Your task to perform on an android device: Open wifi settings Image 0: 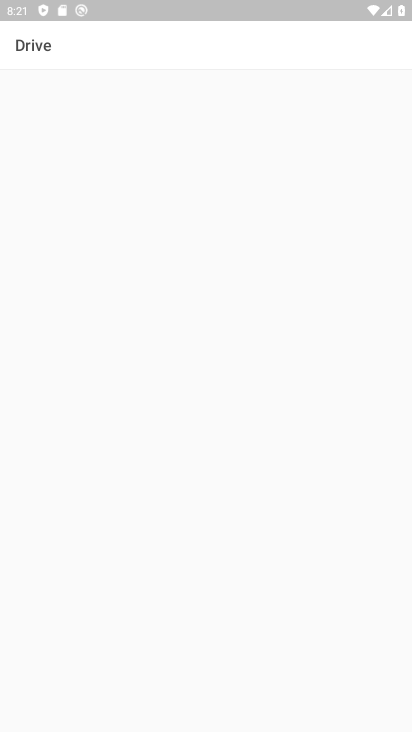
Step 0: press home button
Your task to perform on an android device: Open wifi settings Image 1: 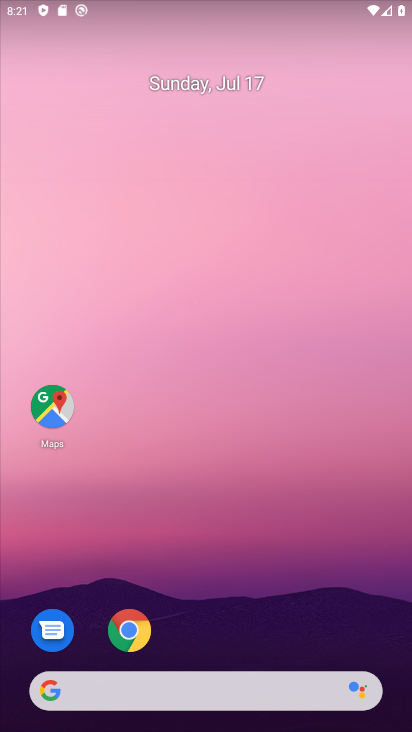
Step 1: drag from (238, 635) to (187, 108)
Your task to perform on an android device: Open wifi settings Image 2: 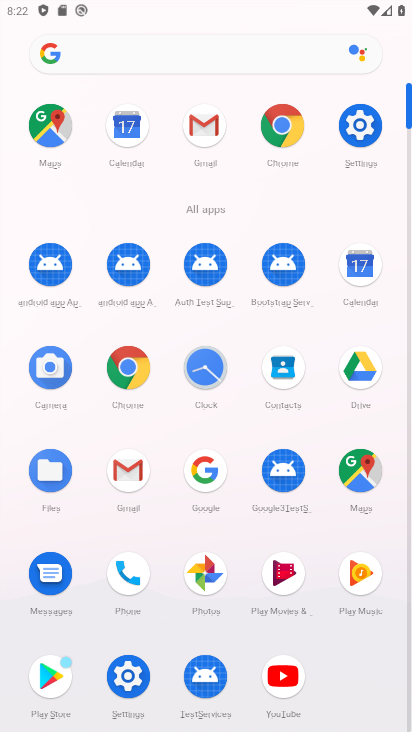
Step 2: click (126, 684)
Your task to perform on an android device: Open wifi settings Image 3: 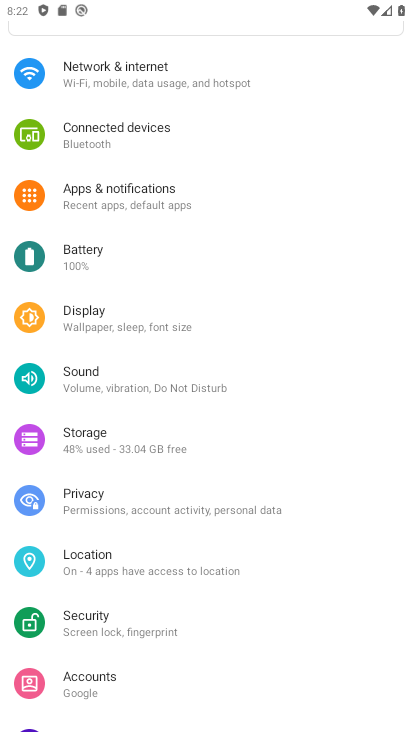
Step 3: click (86, 63)
Your task to perform on an android device: Open wifi settings Image 4: 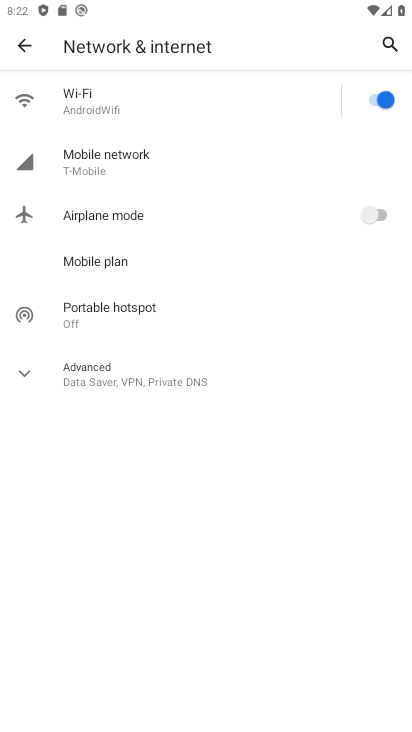
Step 4: click (156, 116)
Your task to perform on an android device: Open wifi settings Image 5: 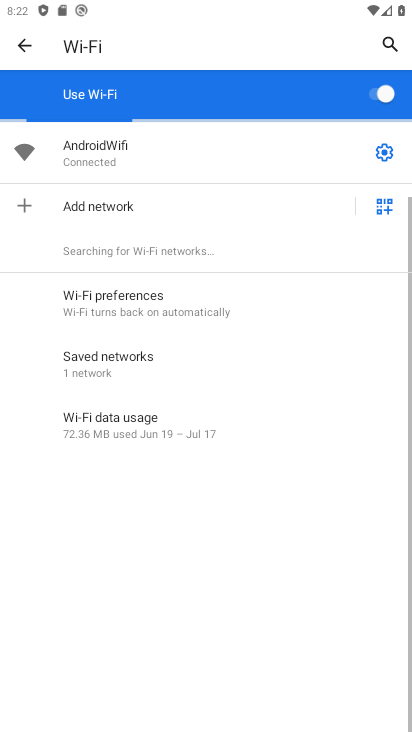
Step 5: task complete